Your task to perform on an android device: check storage Image 0: 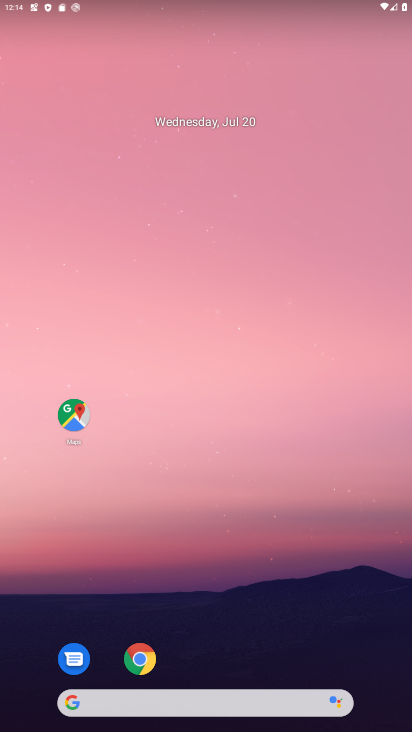
Step 0: drag from (241, 565) to (240, 204)
Your task to perform on an android device: check storage Image 1: 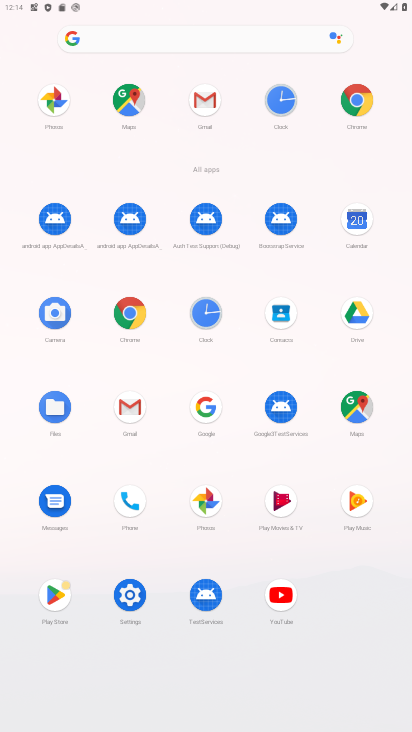
Step 1: click (125, 601)
Your task to perform on an android device: check storage Image 2: 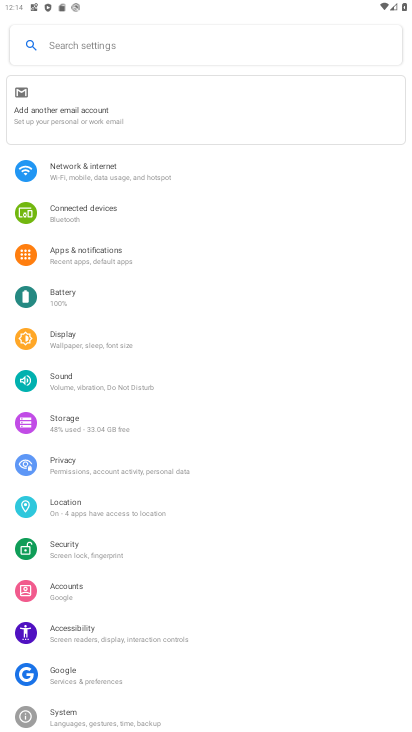
Step 2: click (74, 416)
Your task to perform on an android device: check storage Image 3: 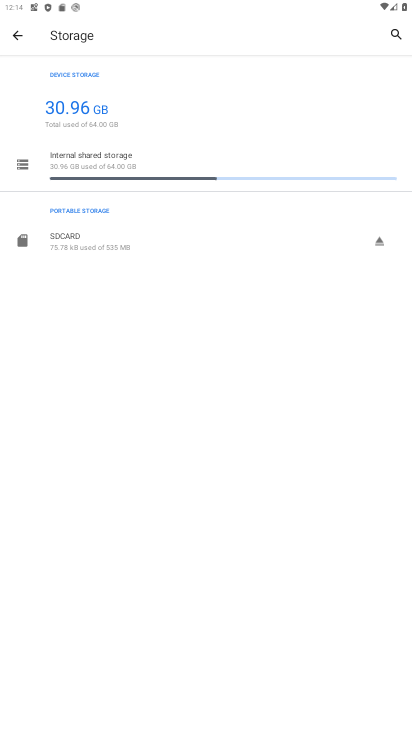
Step 3: task complete